Your task to perform on an android device: turn off priority inbox in the gmail app Image 0: 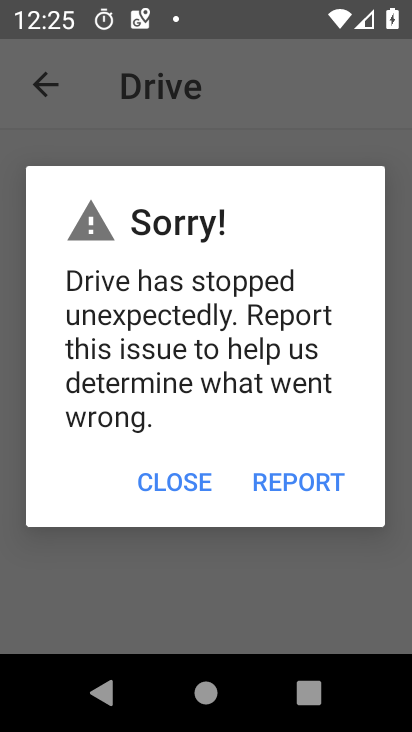
Step 0: press home button
Your task to perform on an android device: turn off priority inbox in the gmail app Image 1: 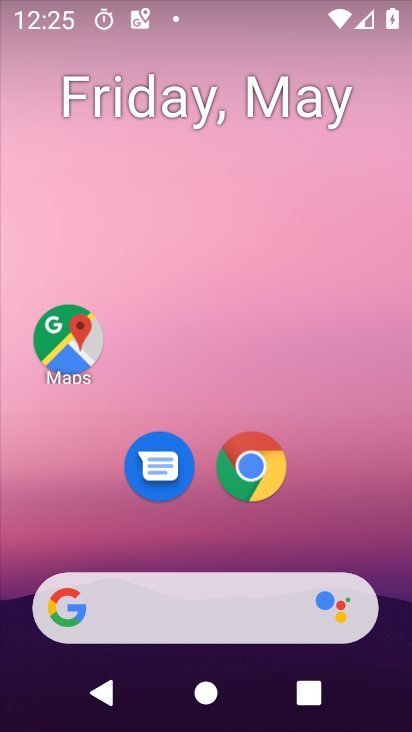
Step 1: drag from (390, 623) to (309, 50)
Your task to perform on an android device: turn off priority inbox in the gmail app Image 2: 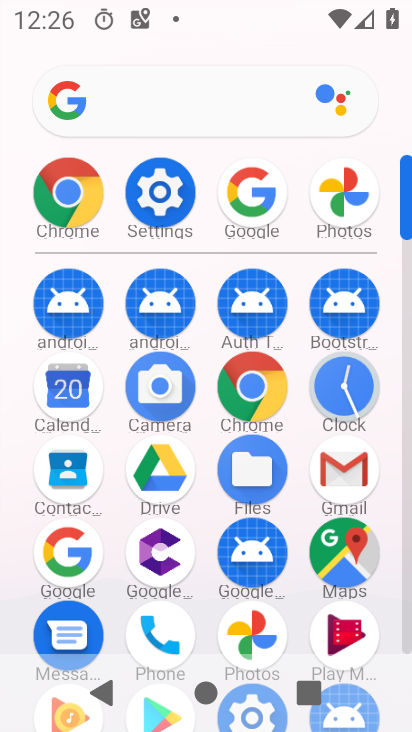
Step 2: click (322, 469)
Your task to perform on an android device: turn off priority inbox in the gmail app Image 3: 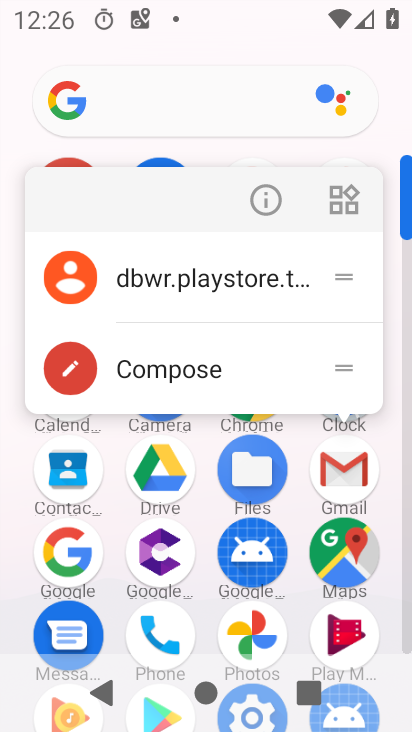
Step 3: click (346, 460)
Your task to perform on an android device: turn off priority inbox in the gmail app Image 4: 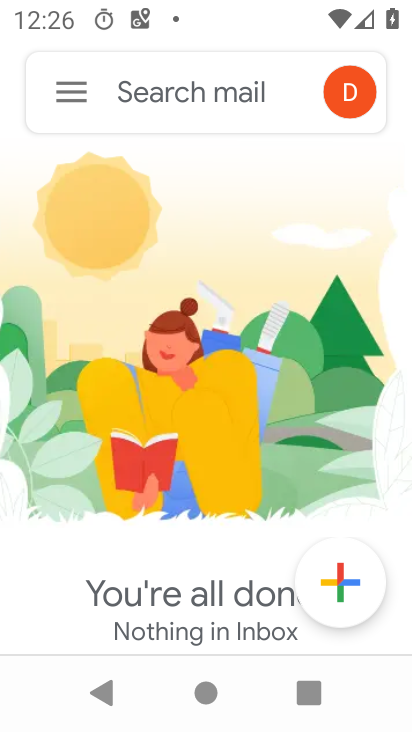
Step 4: click (82, 97)
Your task to perform on an android device: turn off priority inbox in the gmail app Image 5: 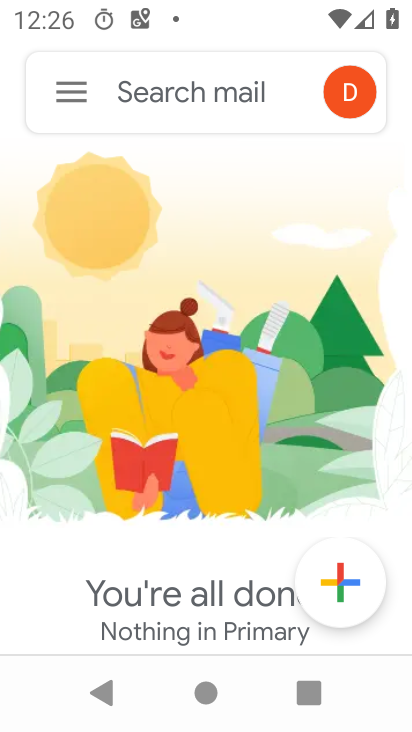
Step 5: click (56, 94)
Your task to perform on an android device: turn off priority inbox in the gmail app Image 6: 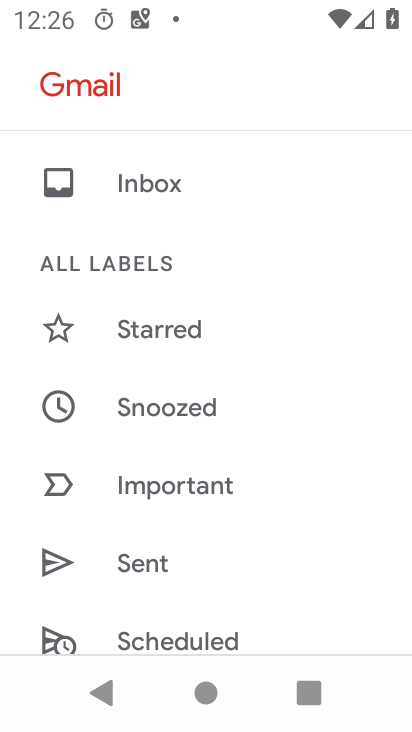
Step 6: drag from (111, 556) to (152, 55)
Your task to perform on an android device: turn off priority inbox in the gmail app Image 7: 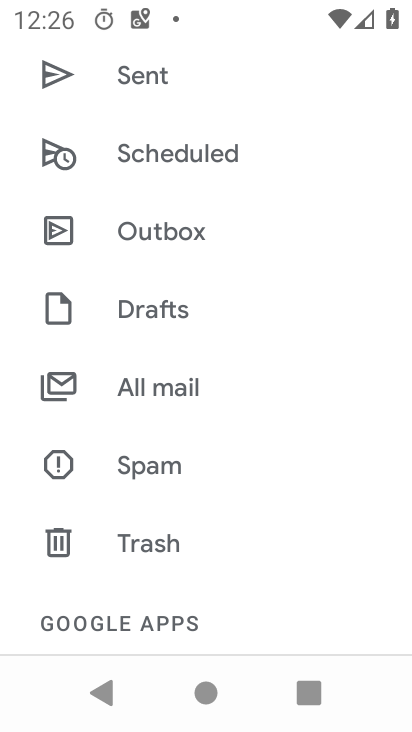
Step 7: drag from (102, 581) to (195, 89)
Your task to perform on an android device: turn off priority inbox in the gmail app Image 8: 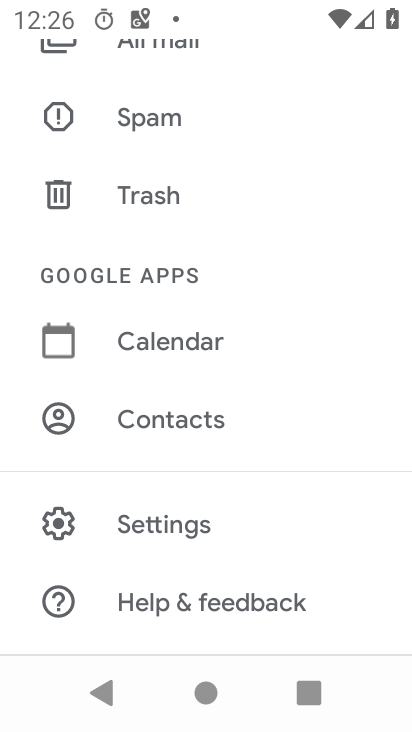
Step 8: click (173, 522)
Your task to perform on an android device: turn off priority inbox in the gmail app Image 9: 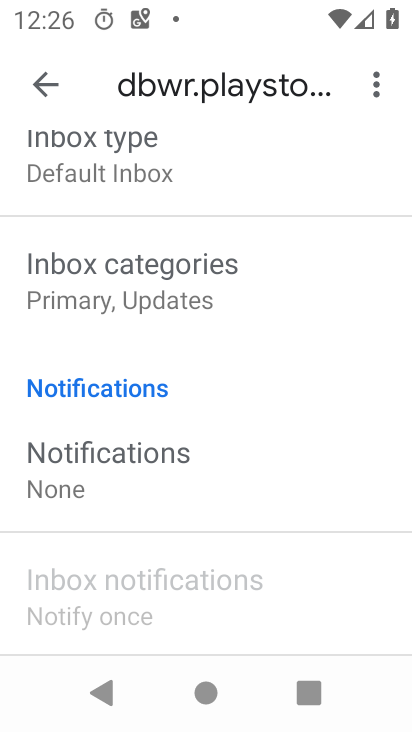
Step 9: click (156, 181)
Your task to perform on an android device: turn off priority inbox in the gmail app Image 10: 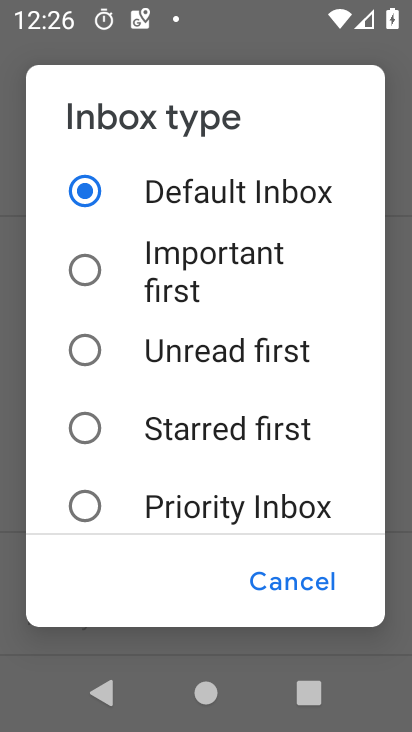
Step 10: task complete